Your task to perform on an android device: Open my contact list Image 0: 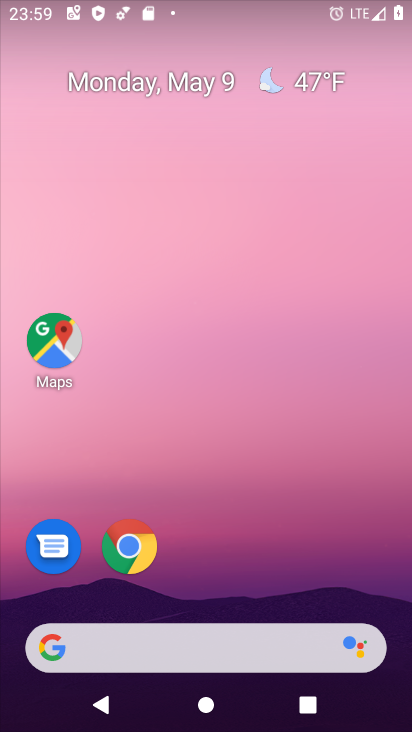
Step 0: drag from (356, 605) to (364, 52)
Your task to perform on an android device: Open my contact list Image 1: 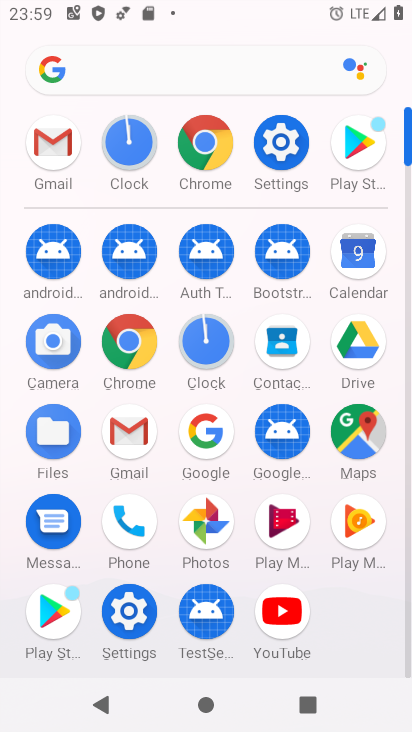
Step 1: click (276, 345)
Your task to perform on an android device: Open my contact list Image 2: 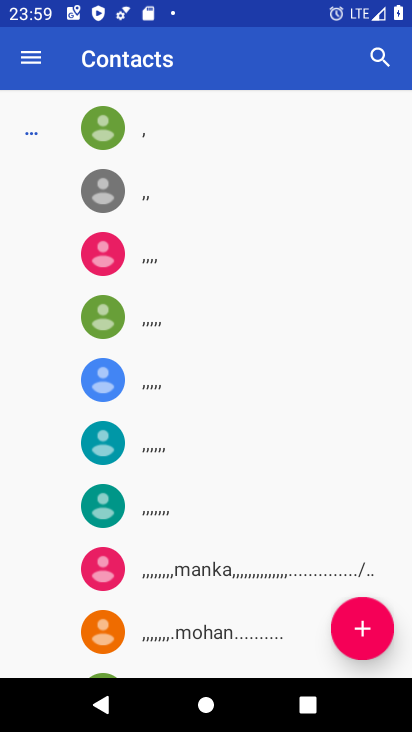
Step 2: task complete